Your task to perform on an android device: find photos in the google photos app Image 0: 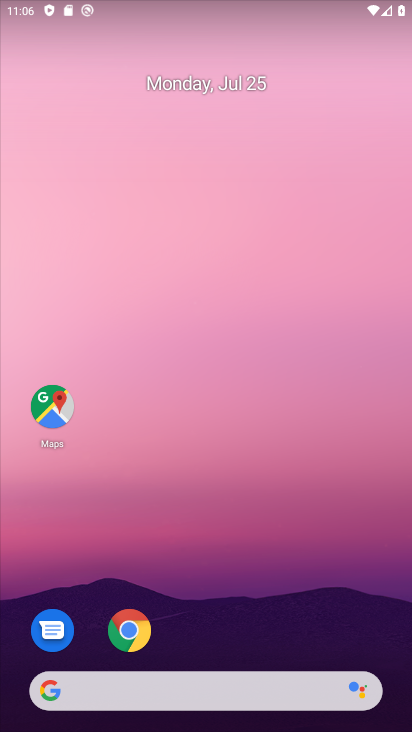
Step 0: drag from (297, 678) to (250, 262)
Your task to perform on an android device: find photos in the google photos app Image 1: 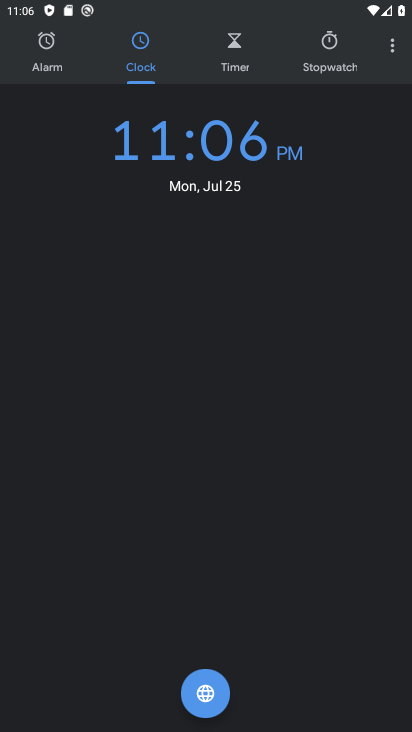
Step 1: press back button
Your task to perform on an android device: find photos in the google photos app Image 2: 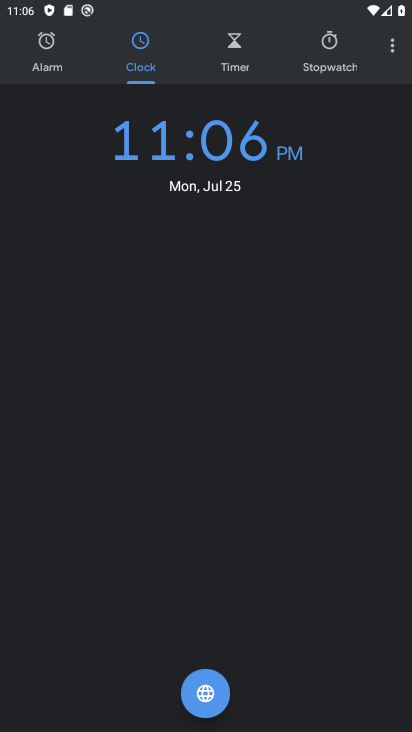
Step 2: press back button
Your task to perform on an android device: find photos in the google photos app Image 3: 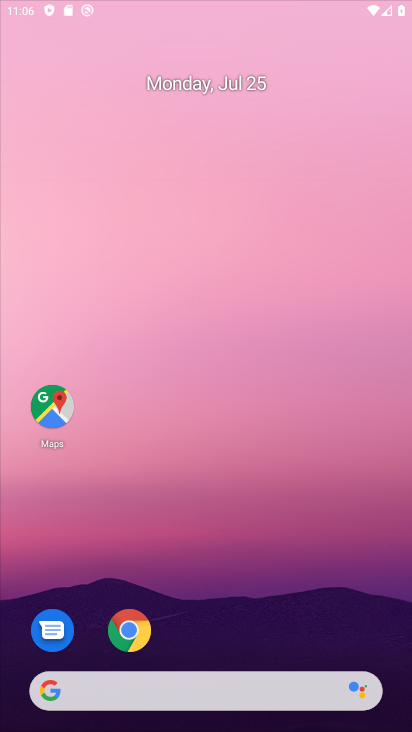
Step 3: press back button
Your task to perform on an android device: find photos in the google photos app Image 4: 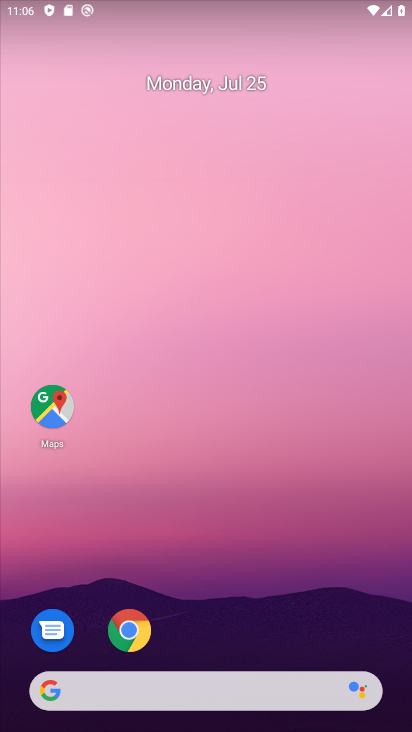
Step 4: click (250, 222)
Your task to perform on an android device: find photos in the google photos app Image 5: 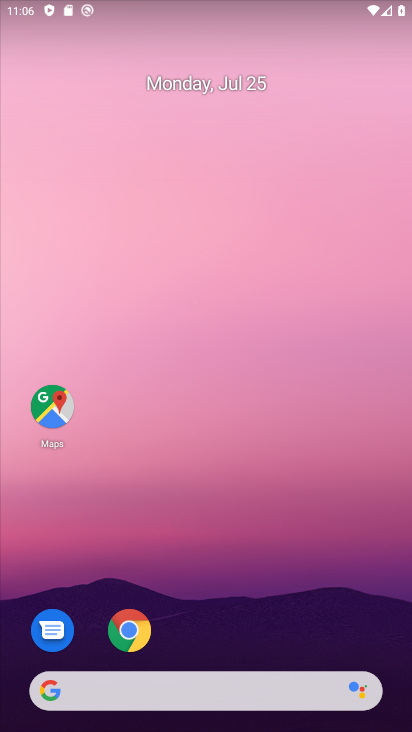
Step 5: drag from (267, 594) to (250, 365)
Your task to perform on an android device: find photos in the google photos app Image 6: 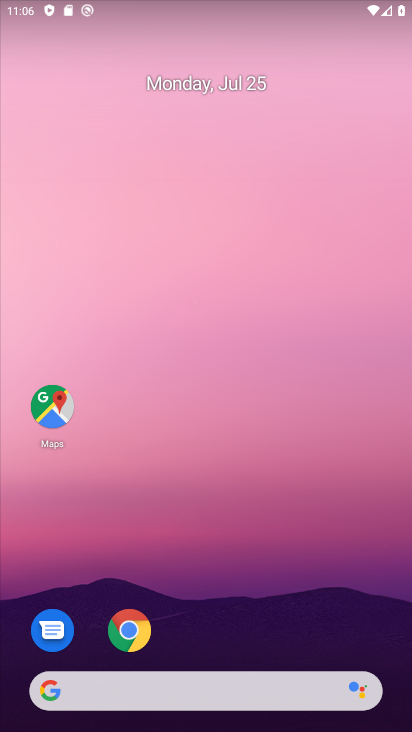
Step 6: drag from (195, 330) to (180, 125)
Your task to perform on an android device: find photos in the google photos app Image 7: 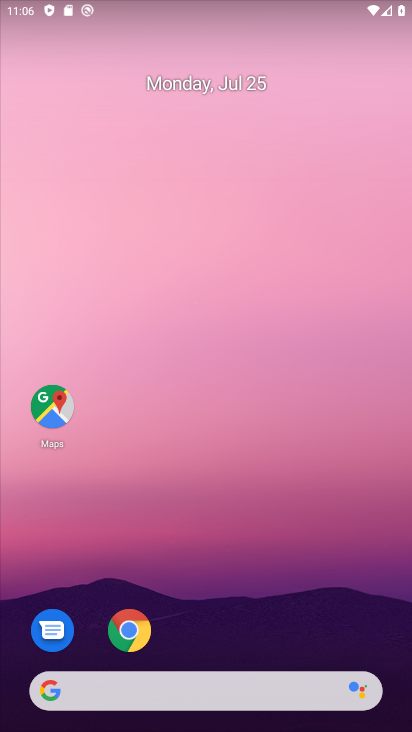
Step 7: drag from (198, 667) to (151, 201)
Your task to perform on an android device: find photos in the google photos app Image 8: 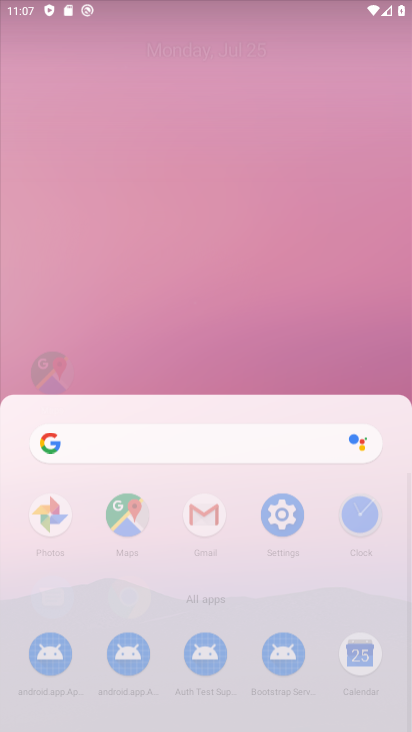
Step 8: drag from (272, 538) to (218, 213)
Your task to perform on an android device: find photos in the google photos app Image 9: 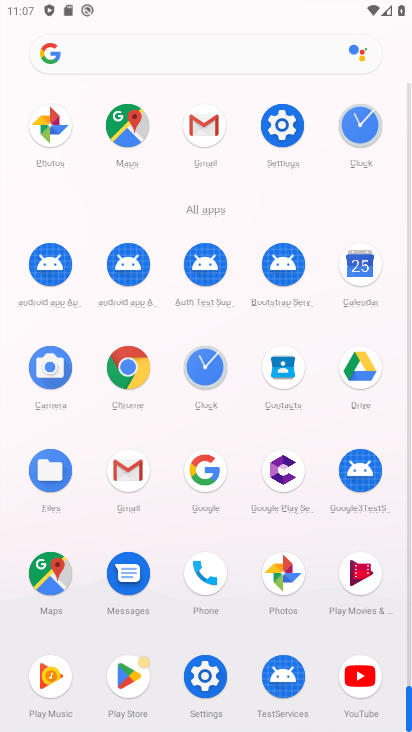
Step 9: click (285, 574)
Your task to perform on an android device: find photos in the google photos app Image 10: 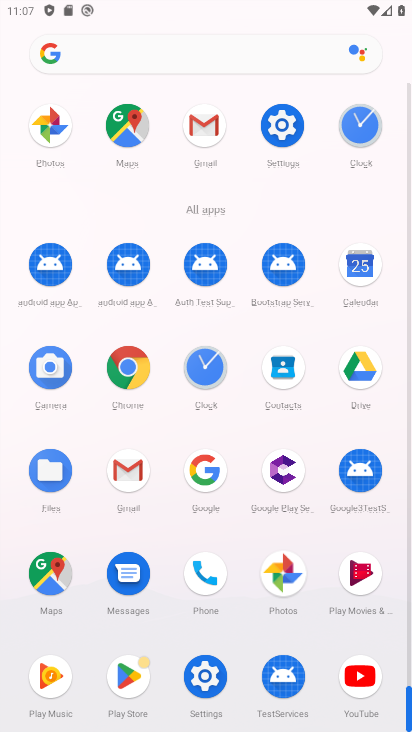
Step 10: click (281, 573)
Your task to perform on an android device: find photos in the google photos app Image 11: 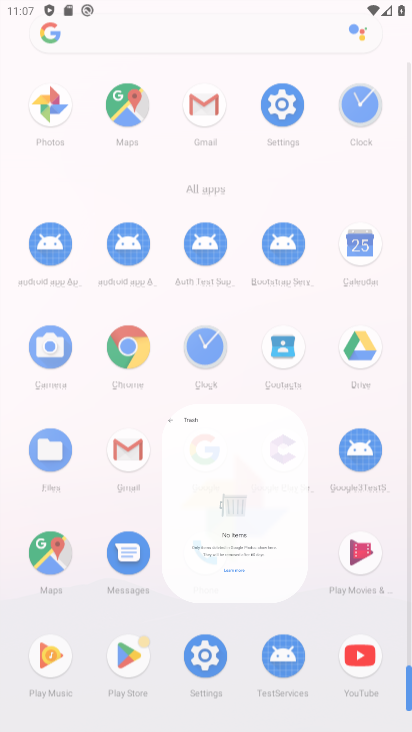
Step 11: click (281, 571)
Your task to perform on an android device: find photos in the google photos app Image 12: 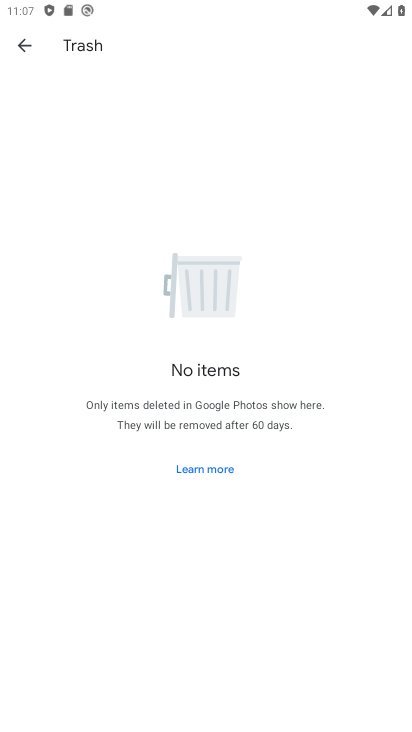
Step 12: click (25, 49)
Your task to perform on an android device: find photos in the google photos app Image 13: 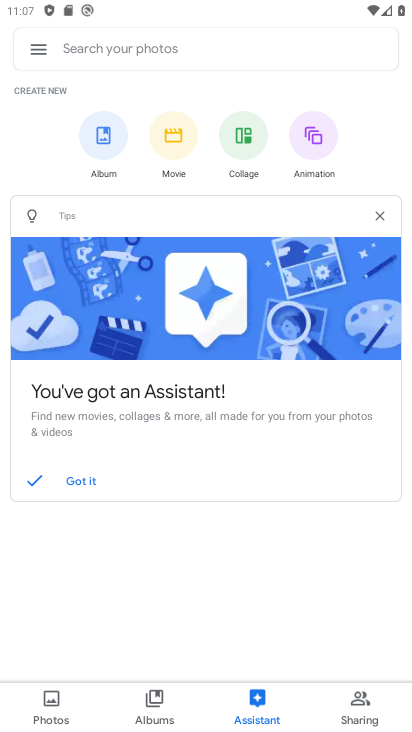
Step 13: click (61, 704)
Your task to perform on an android device: find photos in the google photos app Image 14: 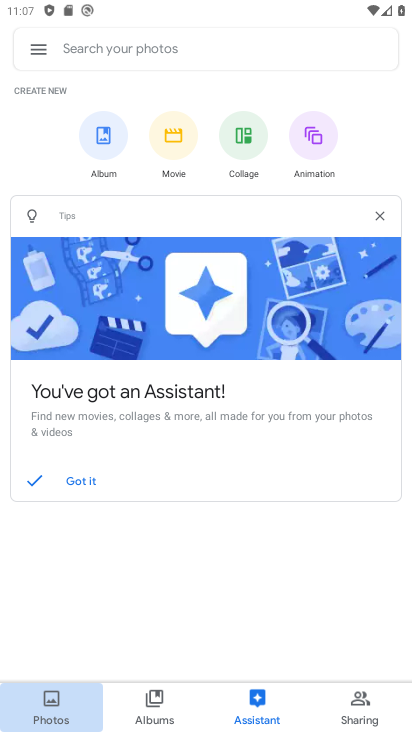
Step 14: click (48, 707)
Your task to perform on an android device: find photos in the google photos app Image 15: 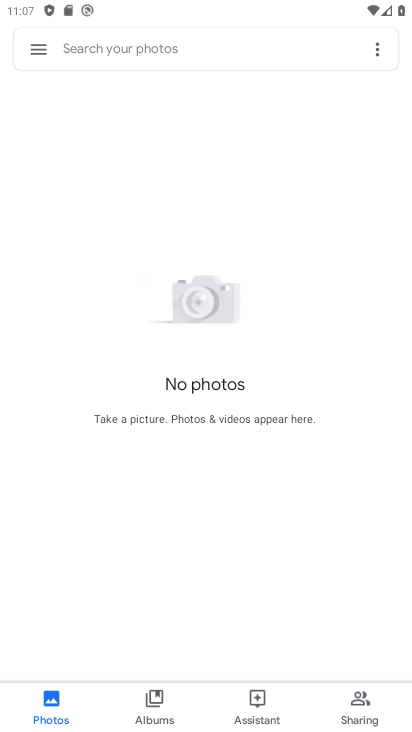
Step 15: task complete